Your task to perform on an android device: Do I have any events tomorrow? Image 0: 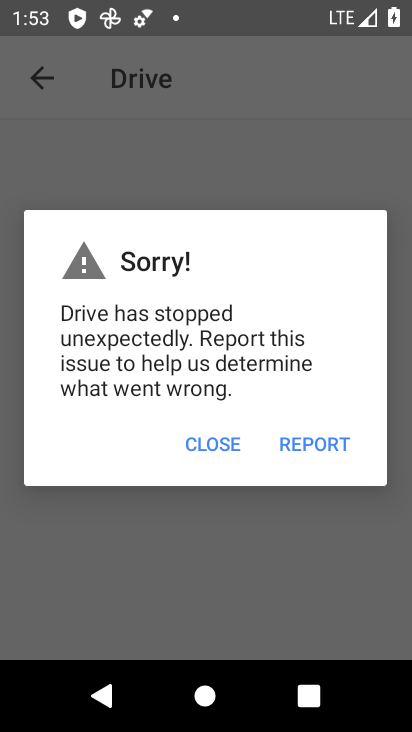
Step 0: press home button
Your task to perform on an android device: Do I have any events tomorrow? Image 1: 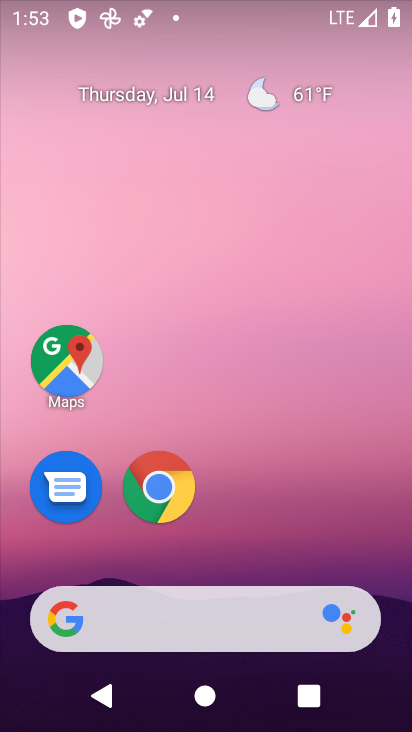
Step 1: drag from (358, 536) to (365, 132)
Your task to perform on an android device: Do I have any events tomorrow? Image 2: 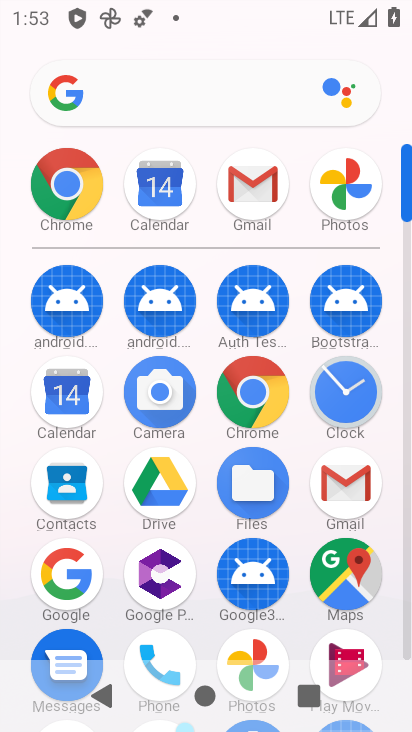
Step 2: click (80, 383)
Your task to perform on an android device: Do I have any events tomorrow? Image 3: 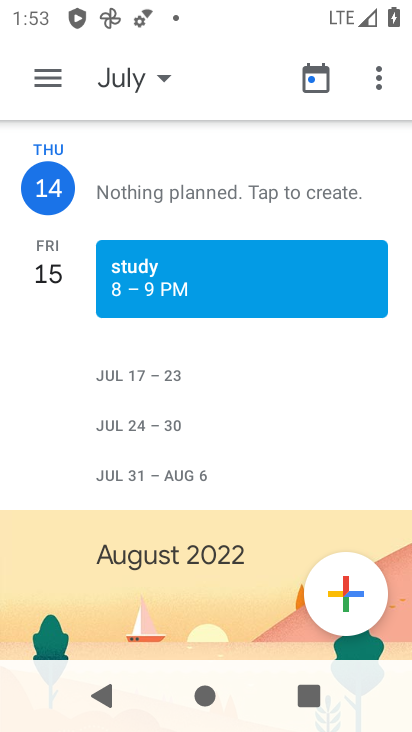
Step 3: click (162, 77)
Your task to perform on an android device: Do I have any events tomorrow? Image 4: 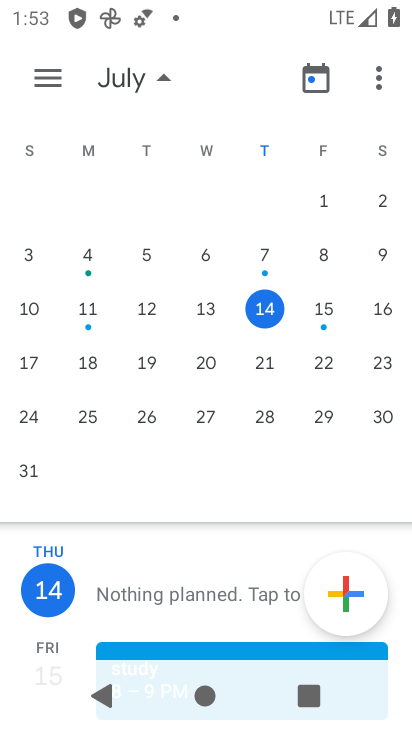
Step 4: click (335, 302)
Your task to perform on an android device: Do I have any events tomorrow? Image 5: 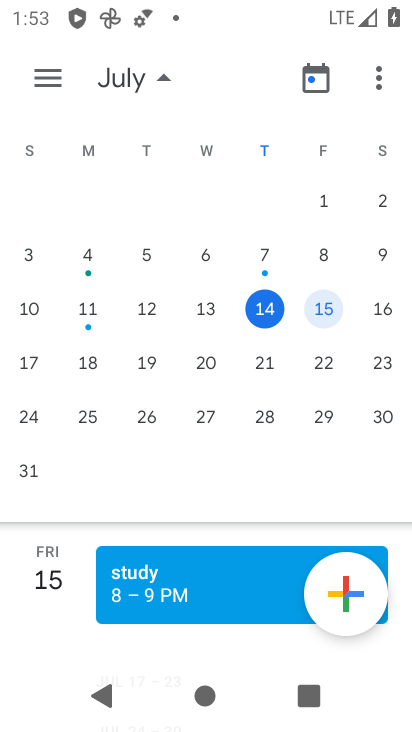
Step 5: drag from (258, 464) to (246, 259)
Your task to perform on an android device: Do I have any events tomorrow? Image 6: 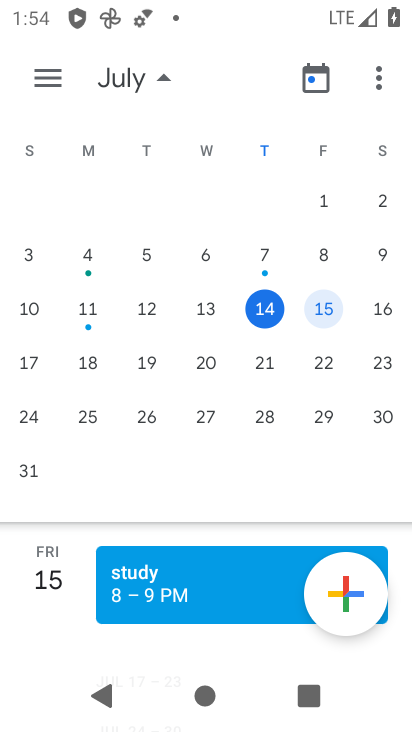
Step 6: click (191, 574)
Your task to perform on an android device: Do I have any events tomorrow? Image 7: 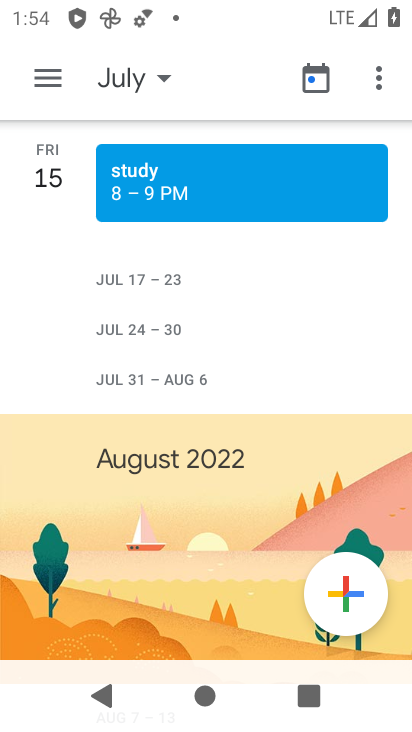
Step 7: click (179, 188)
Your task to perform on an android device: Do I have any events tomorrow? Image 8: 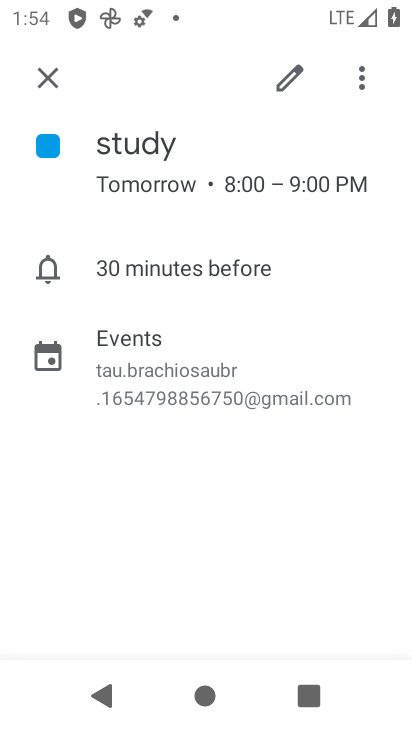
Step 8: task complete